Your task to perform on an android device: Search for flights from Zurich to Buenos aires Image 0: 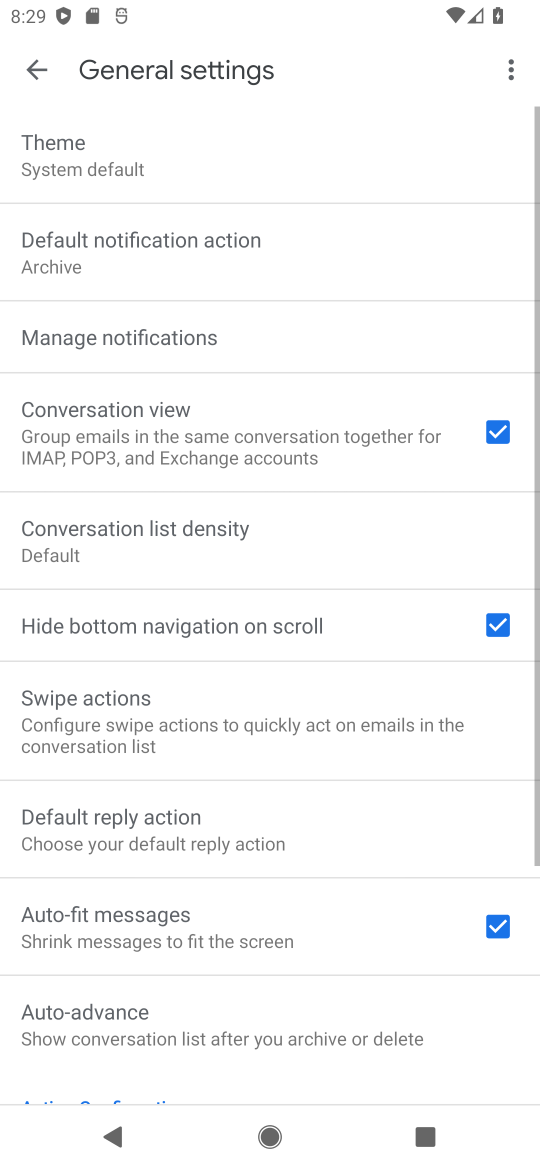
Step 0: press home button
Your task to perform on an android device: Search for flights from Zurich to Buenos aires Image 1: 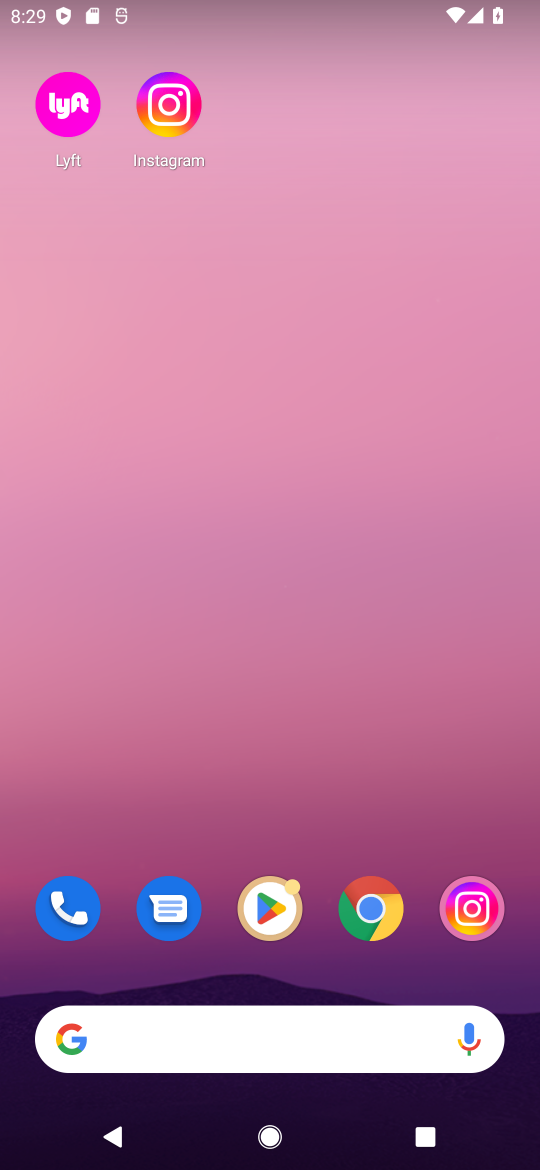
Step 1: click (348, 1037)
Your task to perform on an android device: Search for flights from Zurich to Buenos aires Image 2: 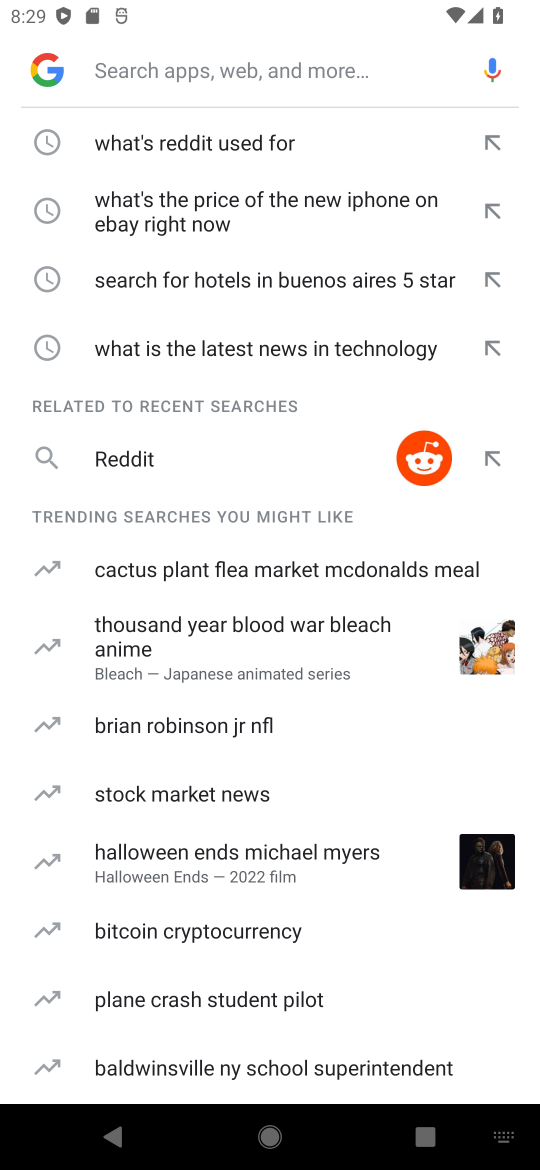
Step 2: type "Search for flights from Zurich to Buenos aires"
Your task to perform on an android device: Search for flights from Zurich to Buenos aires Image 3: 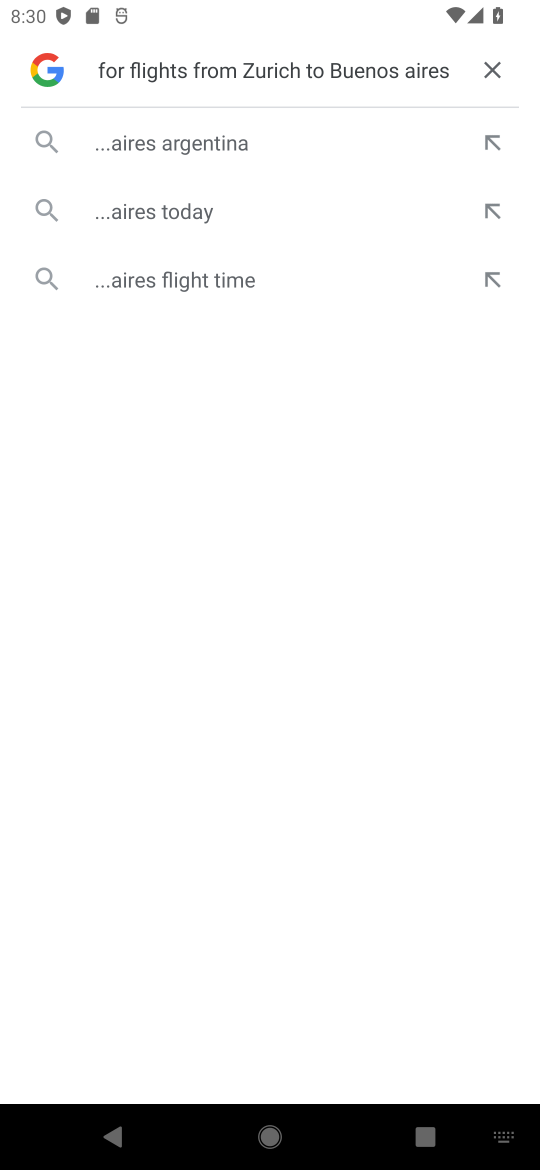
Step 3: click (179, 211)
Your task to perform on an android device: Search for flights from Zurich to Buenos aires Image 4: 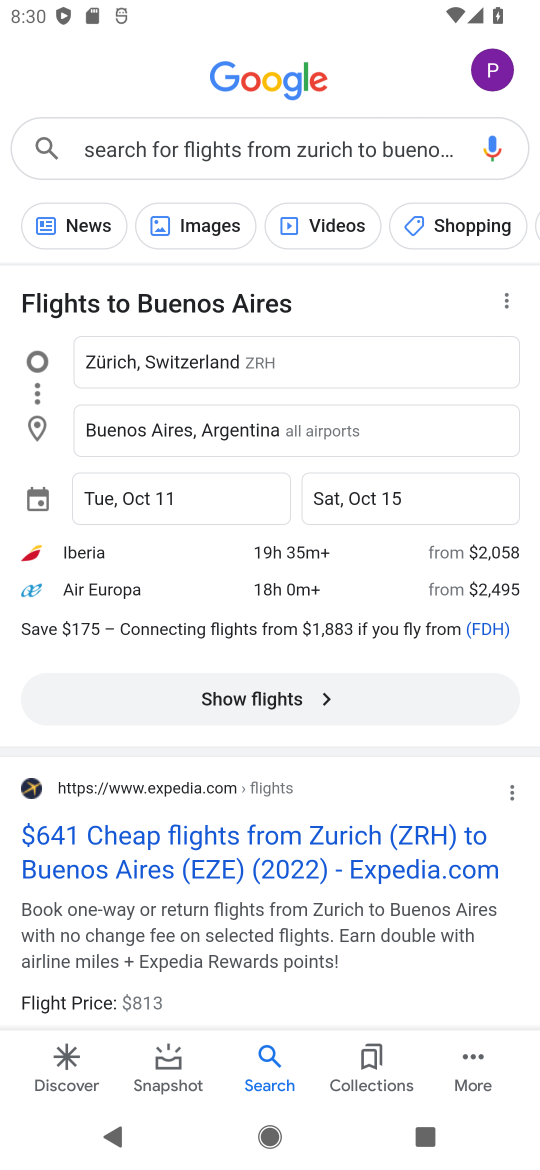
Step 4: click (266, 694)
Your task to perform on an android device: Search for flights from Zurich to Buenos aires Image 5: 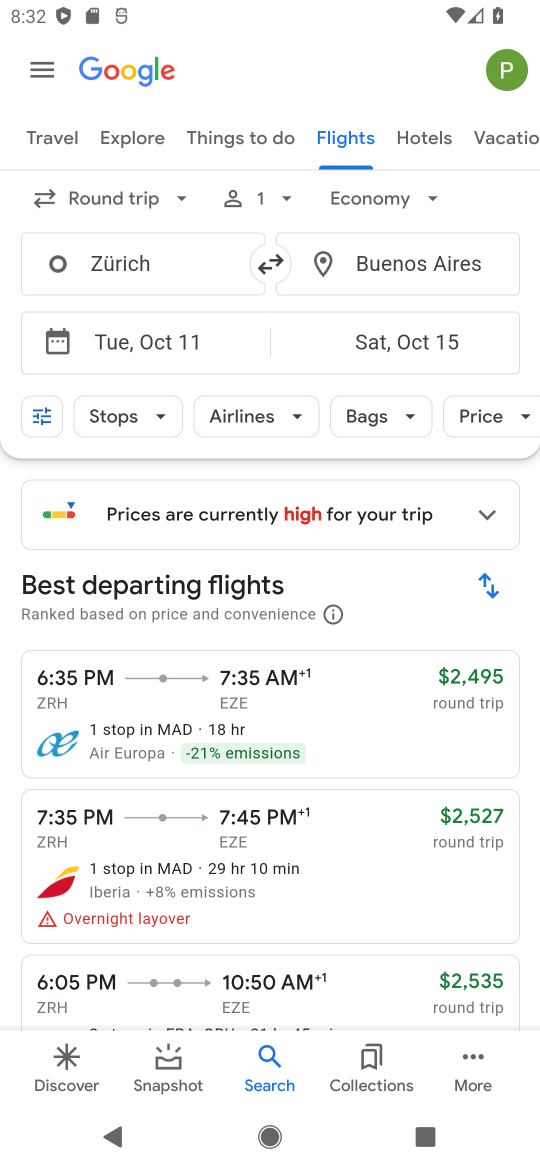
Step 5: task complete